Your task to perform on an android device: What is the recent news? Image 0: 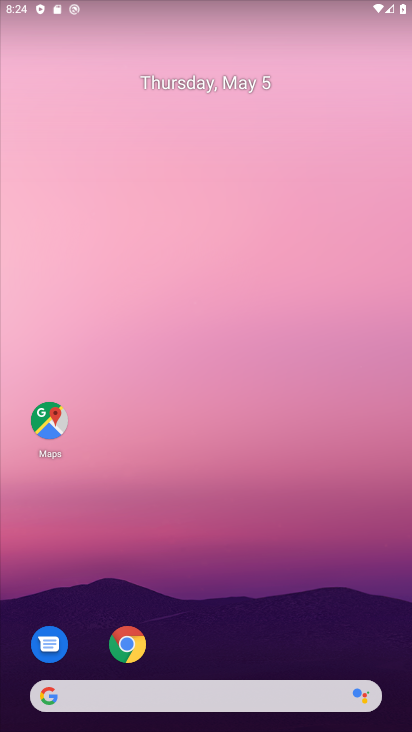
Step 0: drag from (276, 528) to (203, 51)
Your task to perform on an android device: What is the recent news? Image 1: 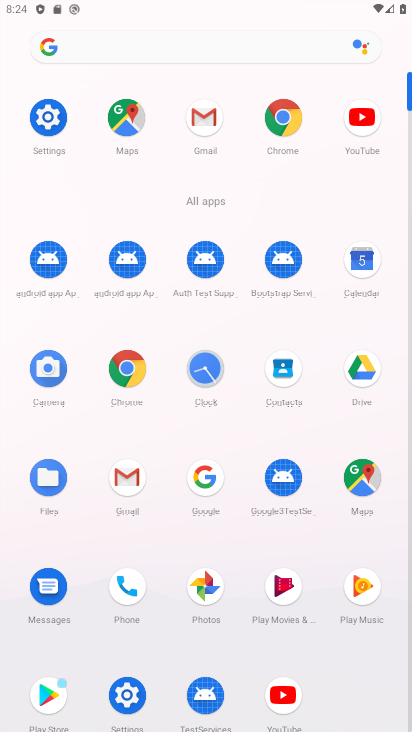
Step 1: click (269, 114)
Your task to perform on an android device: What is the recent news? Image 2: 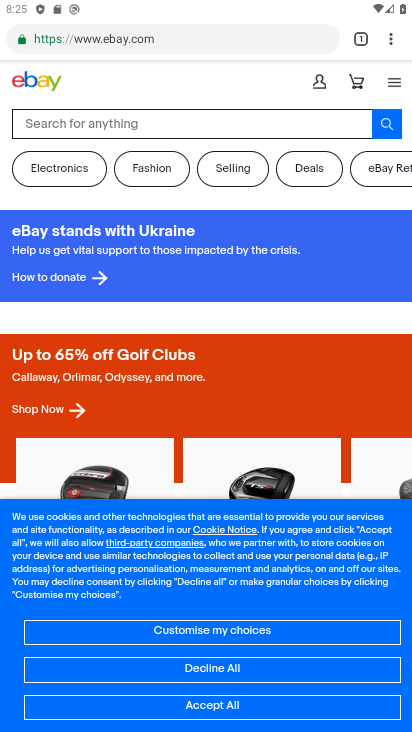
Step 2: task complete